Your task to perform on an android device: turn on airplane mode Image 0: 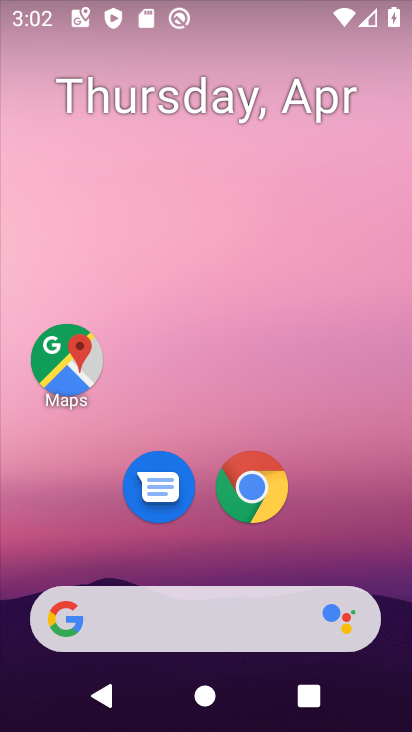
Step 0: drag from (227, 559) to (236, 188)
Your task to perform on an android device: turn on airplane mode Image 1: 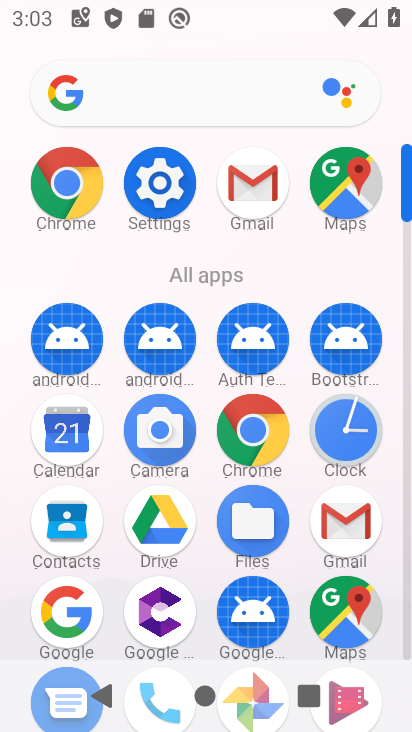
Step 1: click (182, 191)
Your task to perform on an android device: turn on airplane mode Image 2: 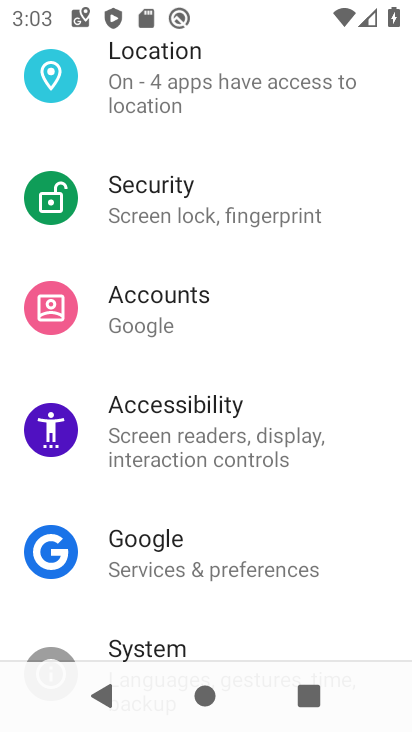
Step 2: drag from (171, 200) to (158, 524)
Your task to perform on an android device: turn on airplane mode Image 3: 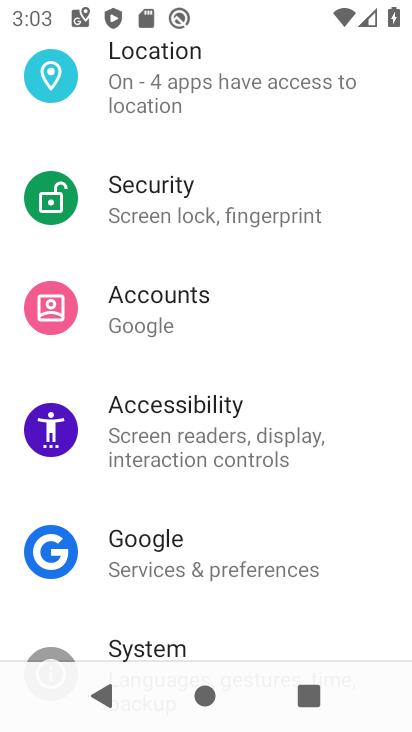
Step 3: drag from (259, 198) to (241, 512)
Your task to perform on an android device: turn on airplane mode Image 4: 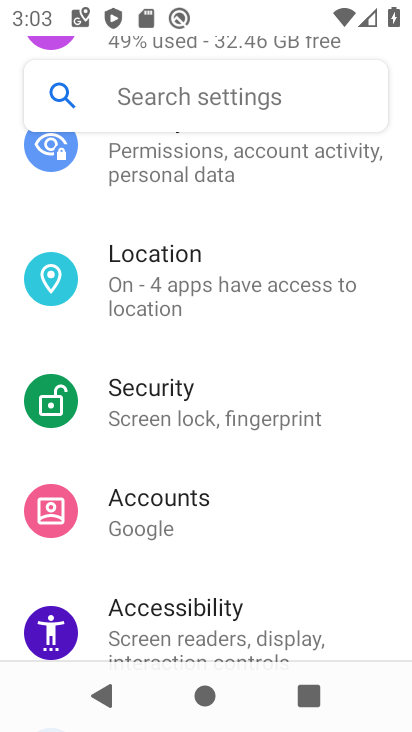
Step 4: drag from (223, 228) to (206, 713)
Your task to perform on an android device: turn on airplane mode Image 5: 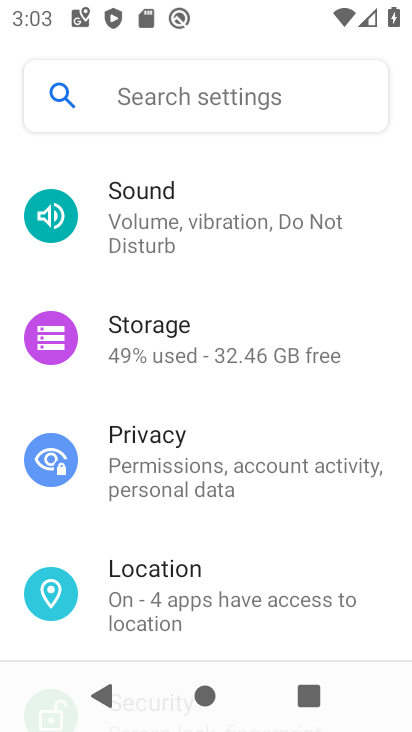
Step 5: drag from (253, 216) to (240, 559)
Your task to perform on an android device: turn on airplane mode Image 6: 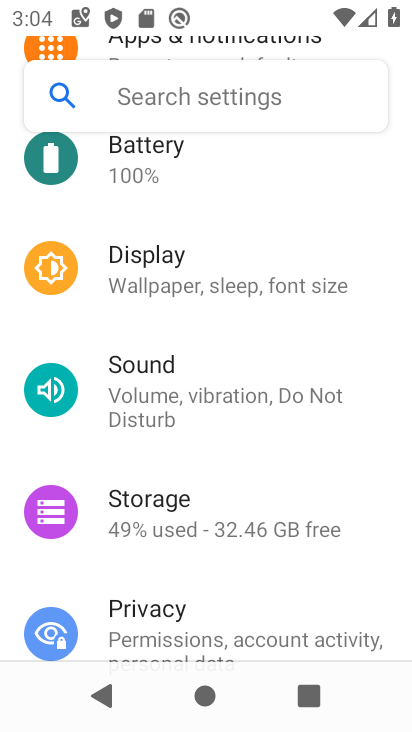
Step 6: drag from (244, 290) to (253, 726)
Your task to perform on an android device: turn on airplane mode Image 7: 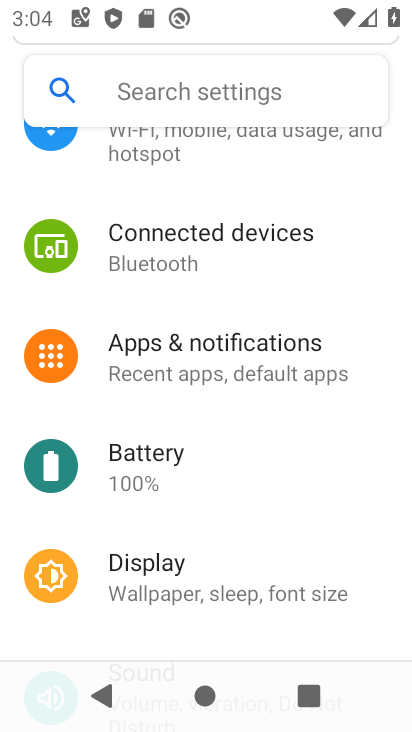
Step 7: drag from (168, 352) to (185, 653)
Your task to perform on an android device: turn on airplane mode Image 8: 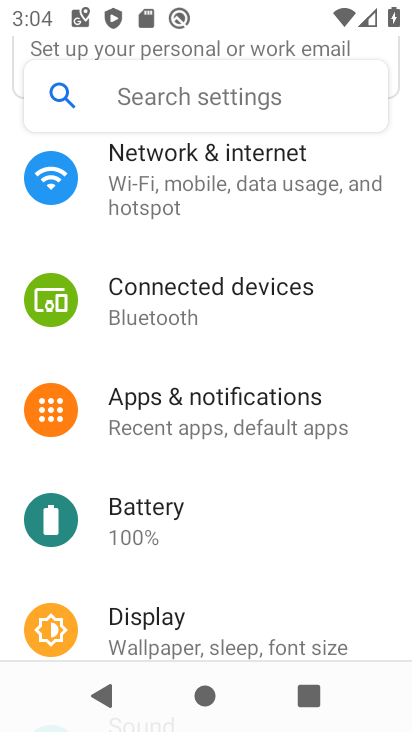
Step 8: drag from (260, 273) to (250, 612)
Your task to perform on an android device: turn on airplane mode Image 9: 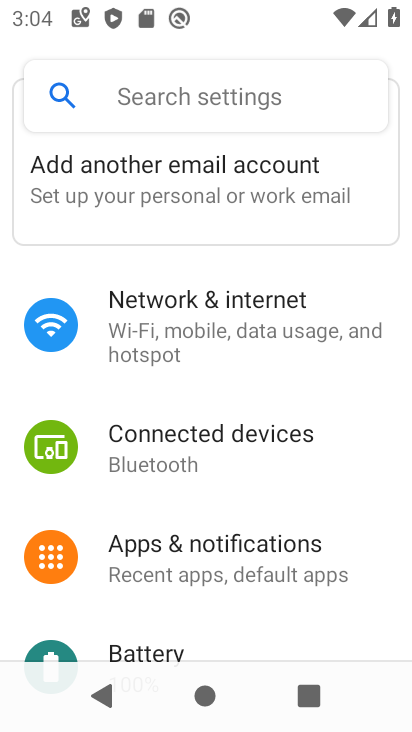
Step 9: click (241, 363)
Your task to perform on an android device: turn on airplane mode Image 10: 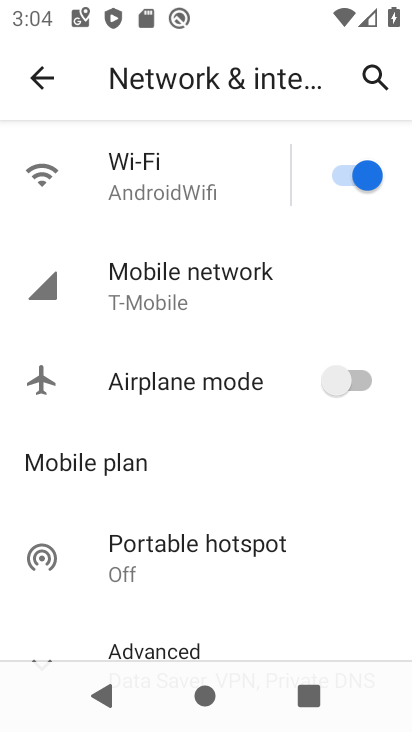
Step 10: click (239, 381)
Your task to perform on an android device: turn on airplane mode Image 11: 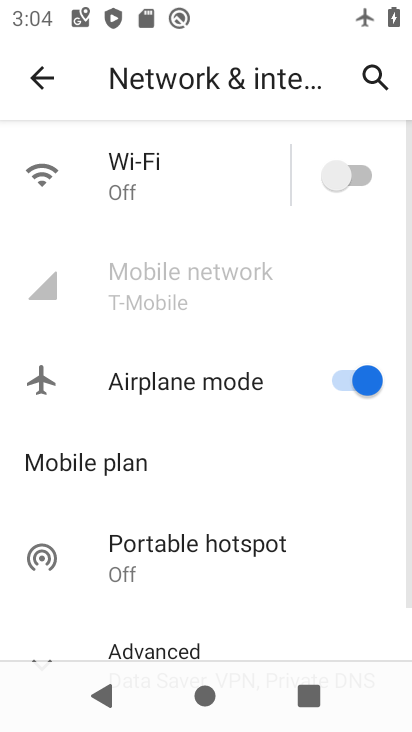
Step 11: task complete